Your task to perform on an android device: Open Wikipedia Image 0: 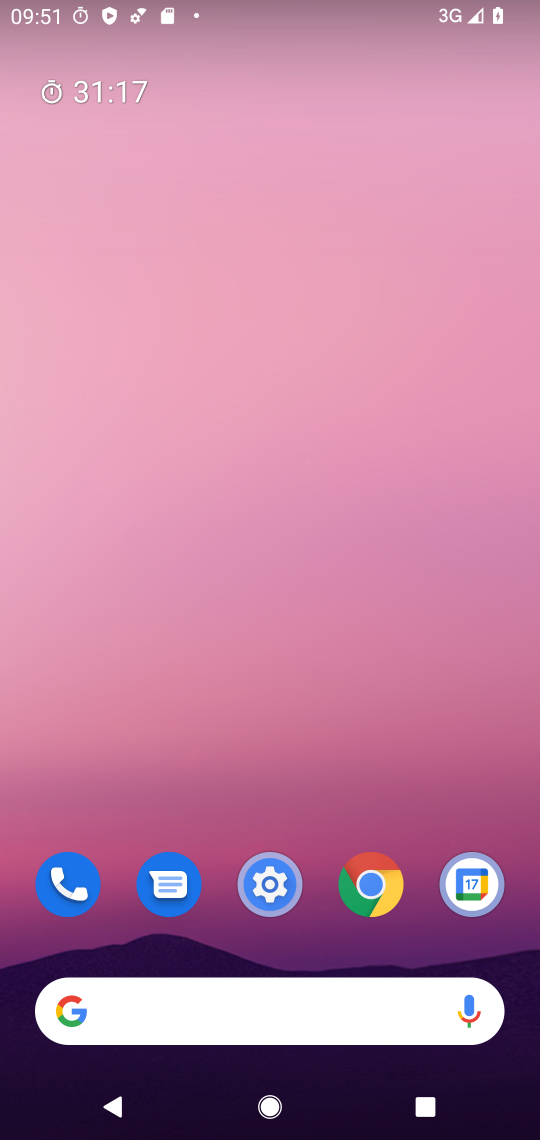
Step 0: click (364, 899)
Your task to perform on an android device: Open Wikipedia Image 1: 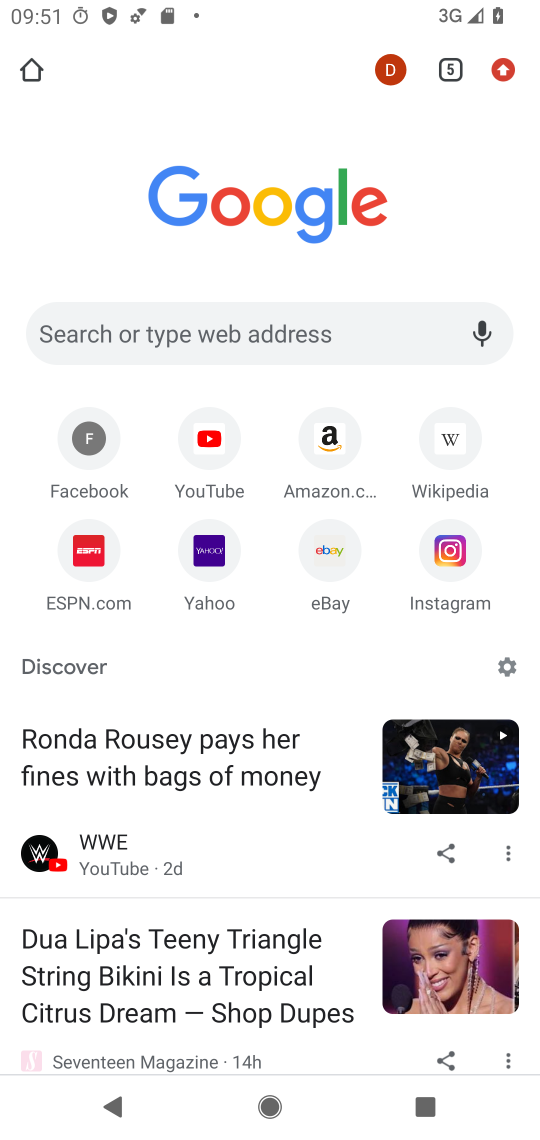
Step 1: click (424, 469)
Your task to perform on an android device: Open Wikipedia Image 2: 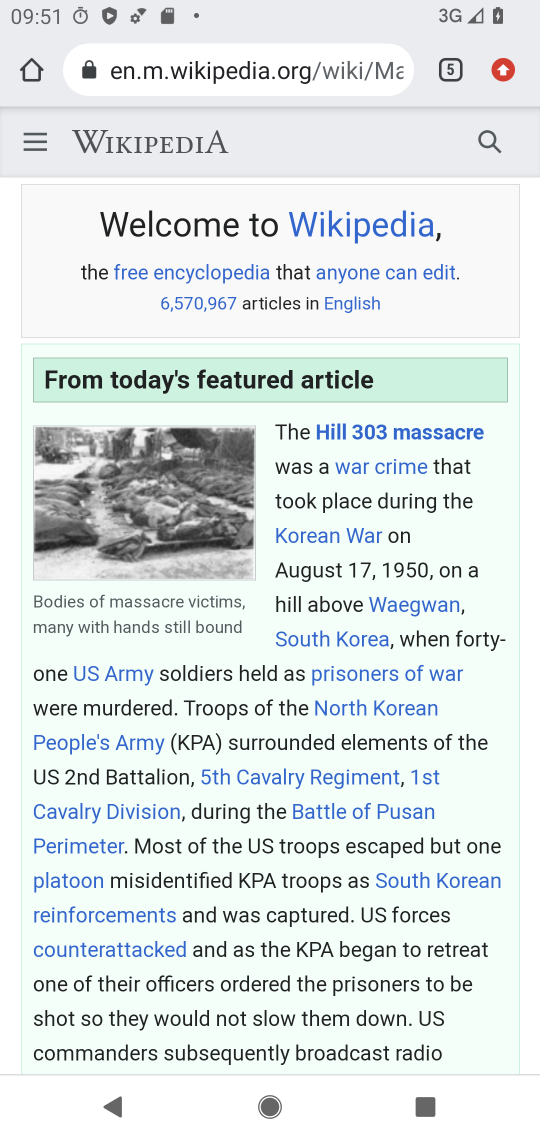
Step 2: task complete